Your task to perform on an android device: Open CNN.com Image 0: 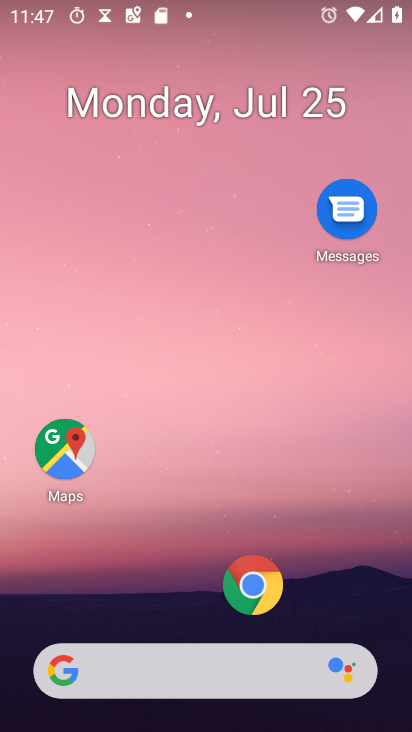
Step 0: press home button
Your task to perform on an android device: Open CNN.com Image 1: 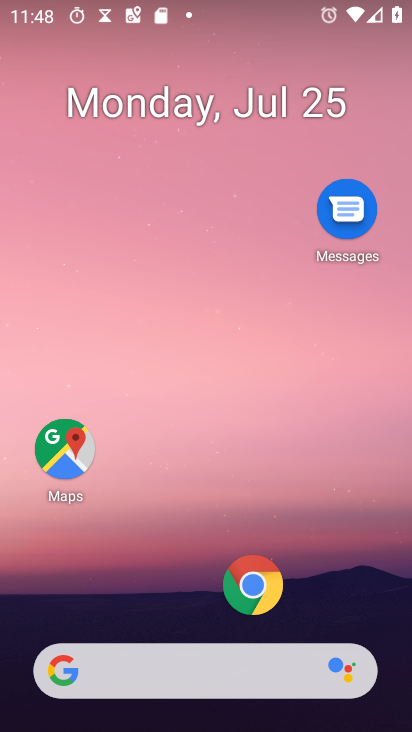
Step 1: click (259, 586)
Your task to perform on an android device: Open CNN.com Image 2: 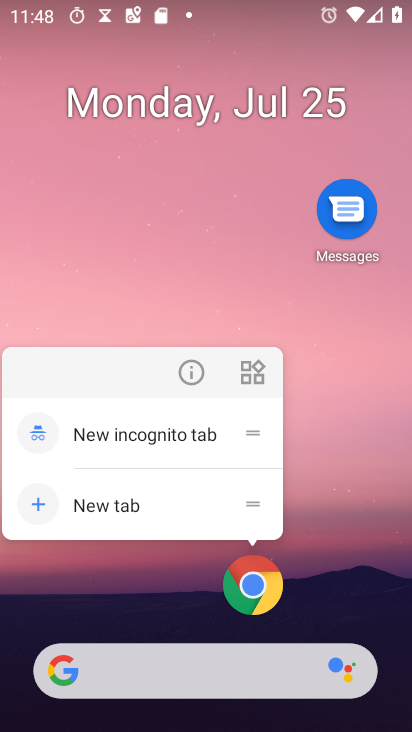
Step 2: click (254, 592)
Your task to perform on an android device: Open CNN.com Image 3: 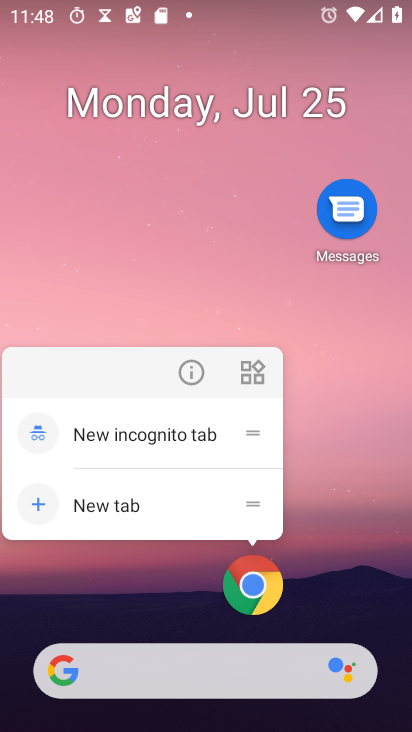
Step 3: click (254, 594)
Your task to perform on an android device: Open CNN.com Image 4: 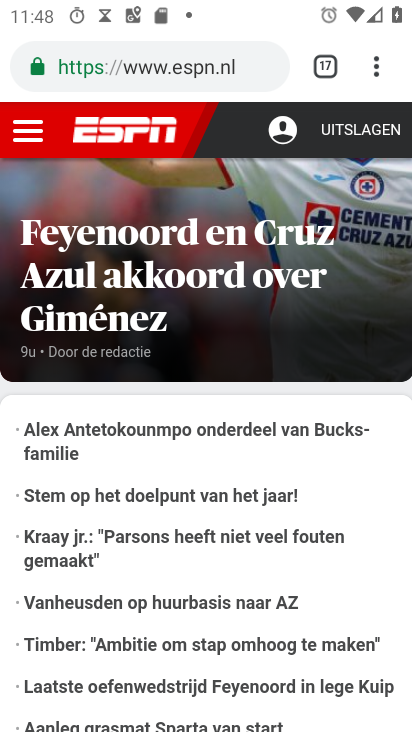
Step 4: drag from (381, 78) to (171, 145)
Your task to perform on an android device: Open CNN.com Image 5: 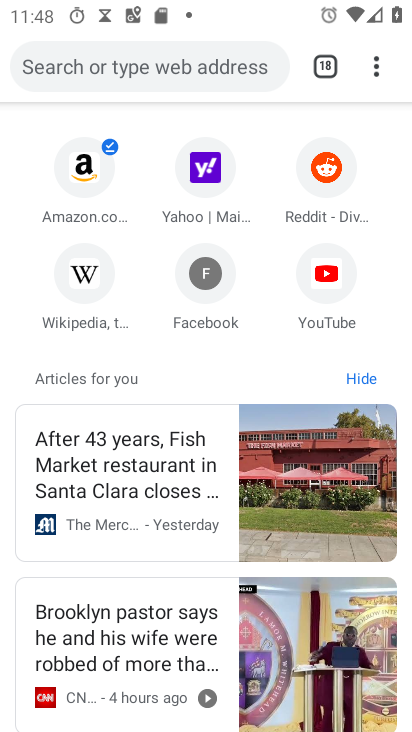
Step 5: click (123, 61)
Your task to perform on an android device: Open CNN.com Image 6: 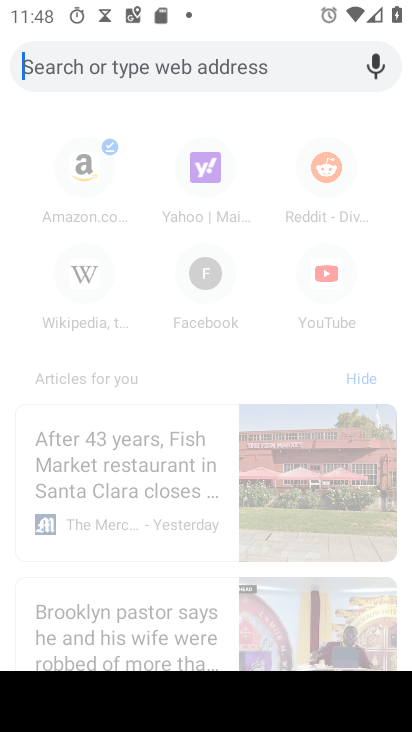
Step 6: type "cnn.com"
Your task to perform on an android device: Open CNN.com Image 7: 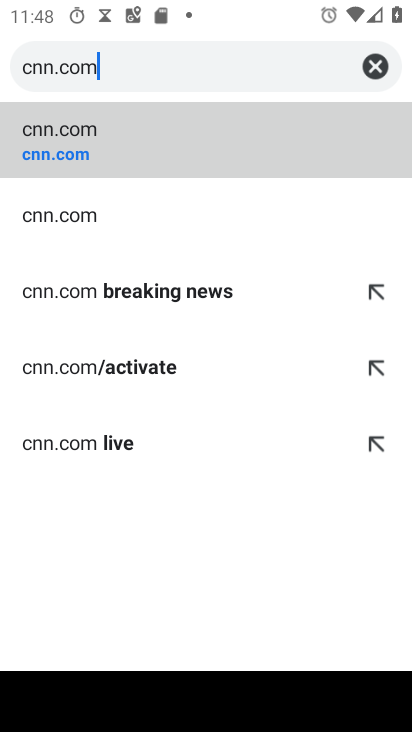
Step 7: click (114, 150)
Your task to perform on an android device: Open CNN.com Image 8: 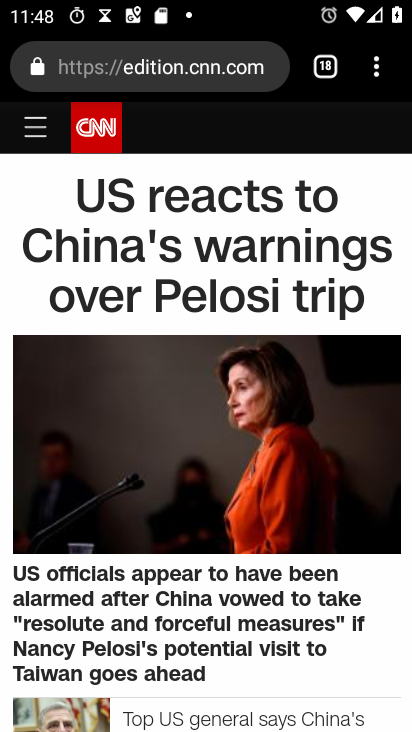
Step 8: task complete